Your task to perform on an android device: manage bookmarks in the chrome app Image 0: 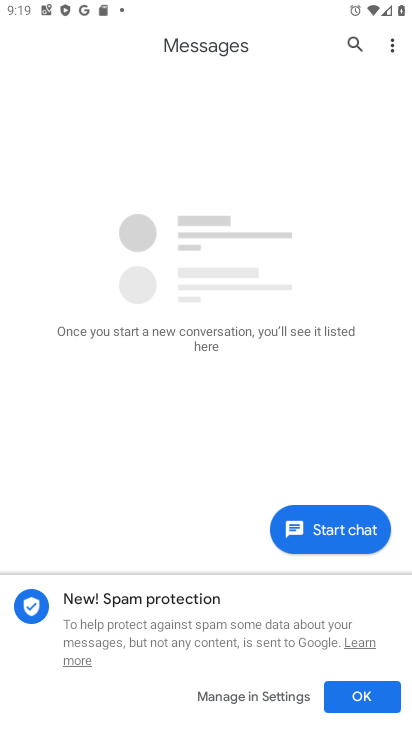
Step 0: press home button
Your task to perform on an android device: manage bookmarks in the chrome app Image 1: 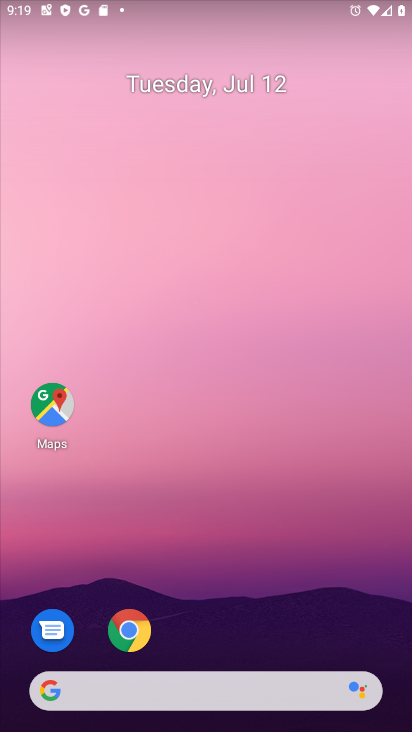
Step 1: click (132, 632)
Your task to perform on an android device: manage bookmarks in the chrome app Image 2: 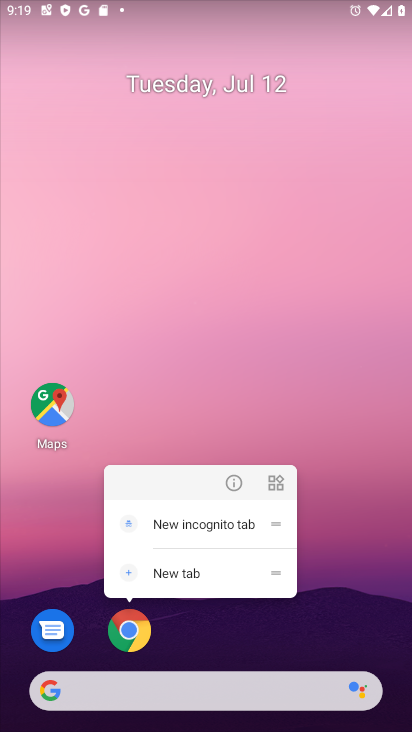
Step 2: click (133, 626)
Your task to perform on an android device: manage bookmarks in the chrome app Image 3: 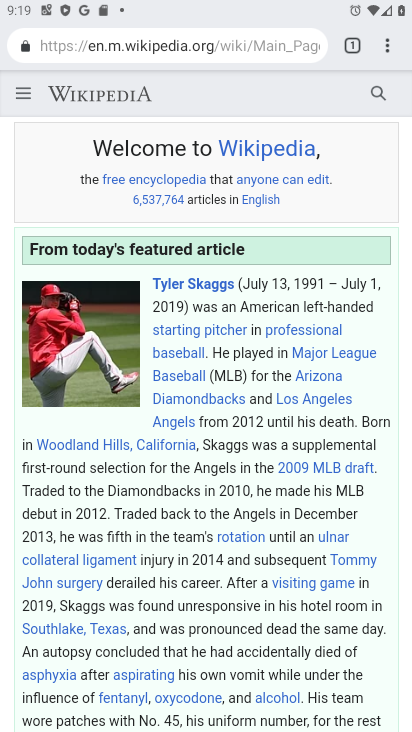
Step 3: click (380, 48)
Your task to perform on an android device: manage bookmarks in the chrome app Image 4: 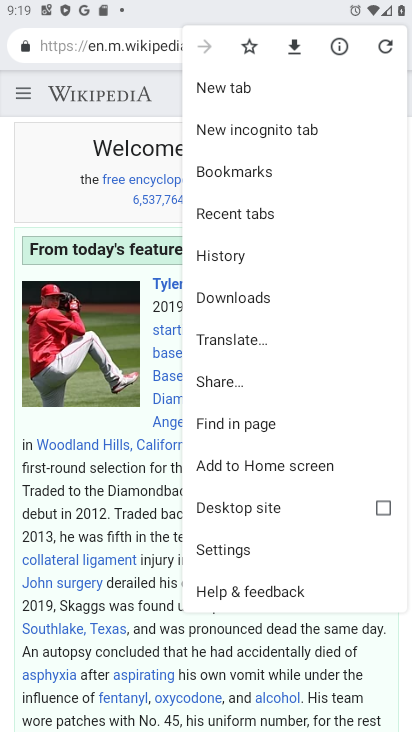
Step 4: click (234, 166)
Your task to perform on an android device: manage bookmarks in the chrome app Image 5: 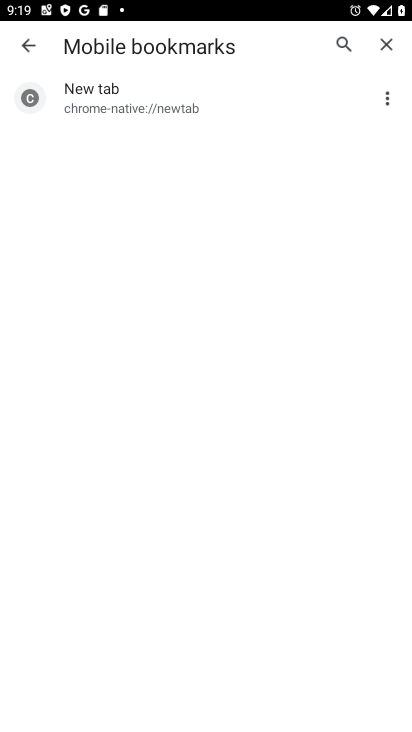
Step 5: click (384, 95)
Your task to perform on an android device: manage bookmarks in the chrome app Image 6: 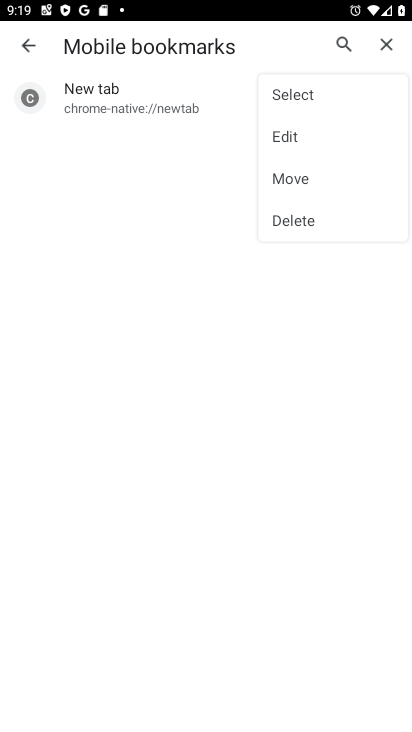
Step 6: click (289, 222)
Your task to perform on an android device: manage bookmarks in the chrome app Image 7: 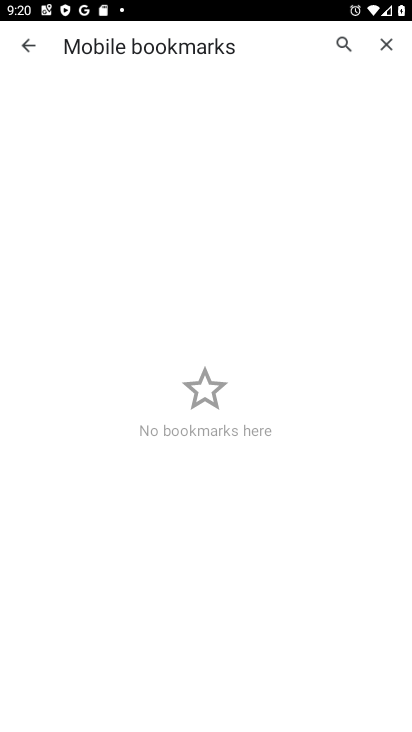
Step 7: task complete